Your task to perform on an android device: open app "VLC for Android" (install if not already installed) and enter user name: "Yves@outlook.com" and password: "internally" Image 0: 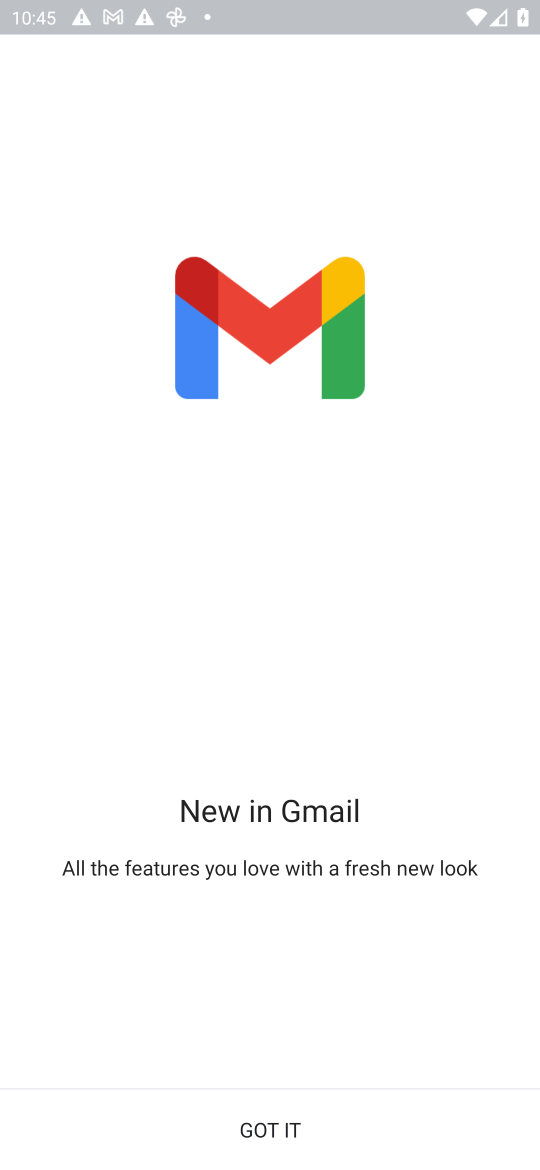
Step 0: press home button
Your task to perform on an android device: open app "VLC for Android" (install if not already installed) and enter user name: "Yves@outlook.com" and password: "internally" Image 1: 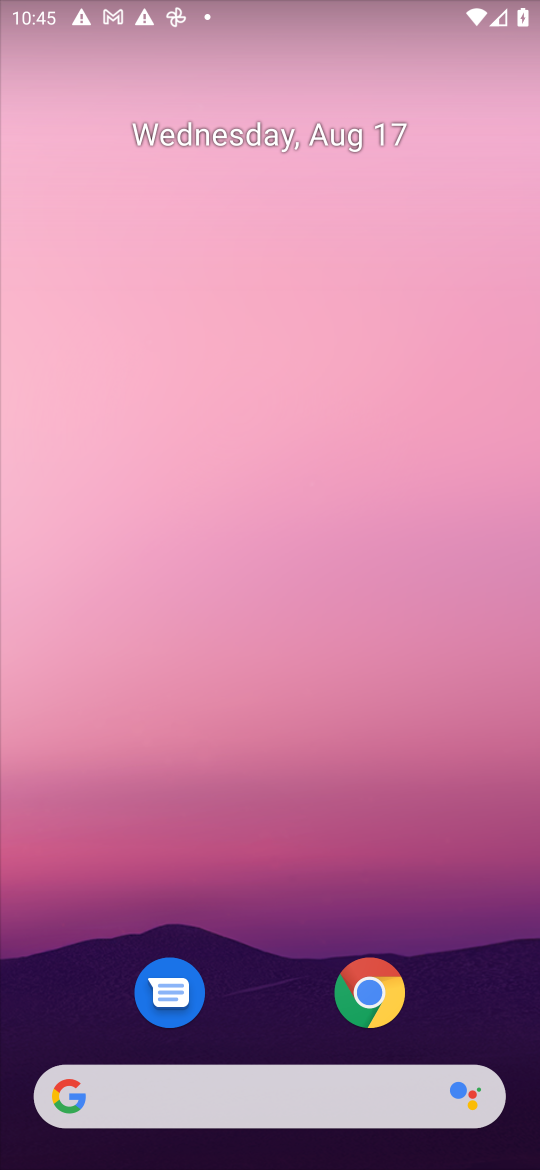
Step 1: drag from (457, 1008) to (284, 12)
Your task to perform on an android device: open app "VLC for Android" (install if not already installed) and enter user name: "Yves@outlook.com" and password: "internally" Image 2: 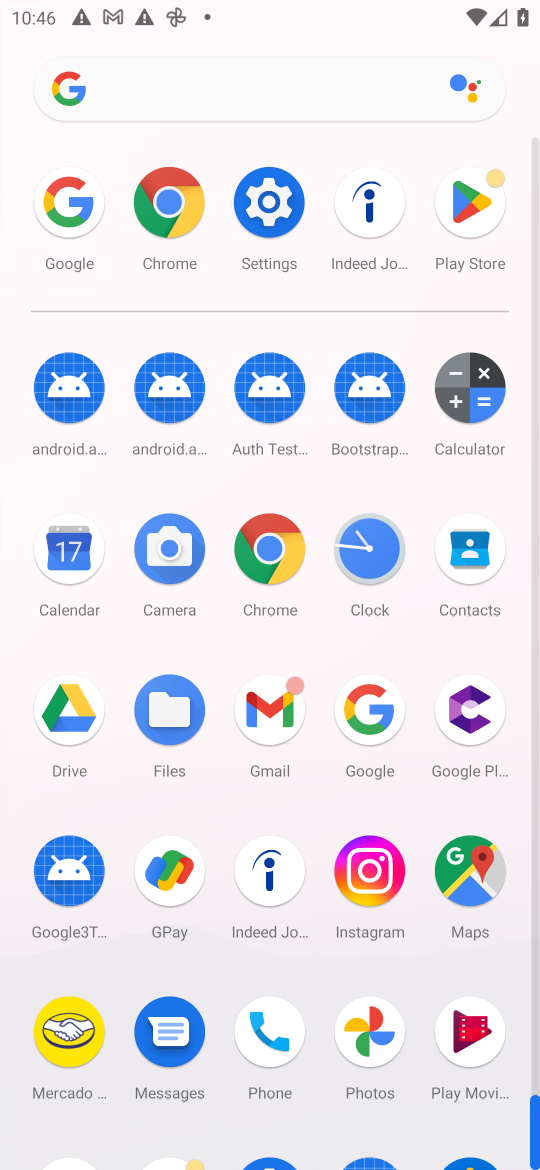
Step 2: click (484, 213)
Your task to perform on an android device: open app "VLC for Android" (install if not already installed) and enter user name: "Yves@outlook.com" and password: "internally" Image 3: 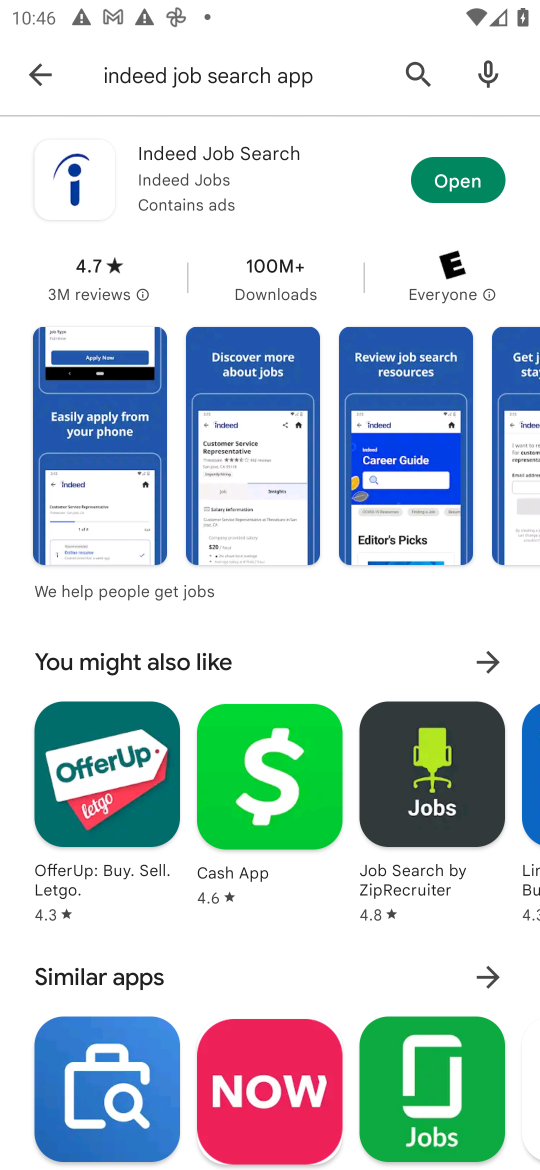
Step 3: press back button
Your task to perform on an android device: open app "VLC for Android" (install if not already installed) and enter user name: "Yves@outlook.com" and password: "internally" Image 4: 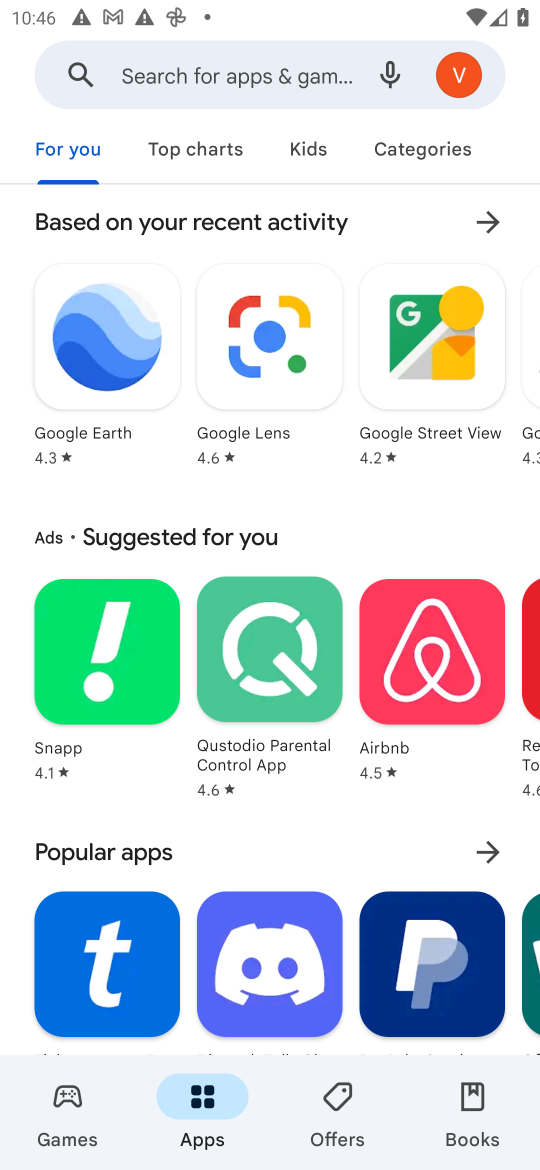
Step 4: click (204, 82)
Your task to perform on an android device: open app "VLC for Android" (install if not already installed) and enter user name: "Yves@outlook.com" and password: "internally" Image 5: 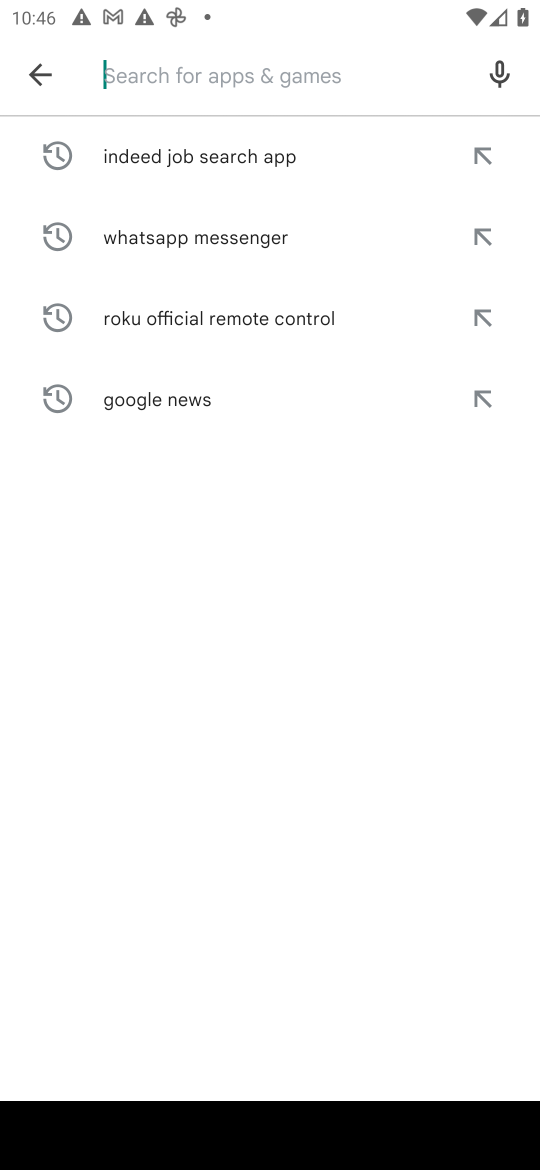
Step 5: type "VLC for Android"
Your task to perform on an android device: open app "VLC for Android" (install if not already installed) and enter user name: "Yves@outlook.com" and password: "internally" Image 6: 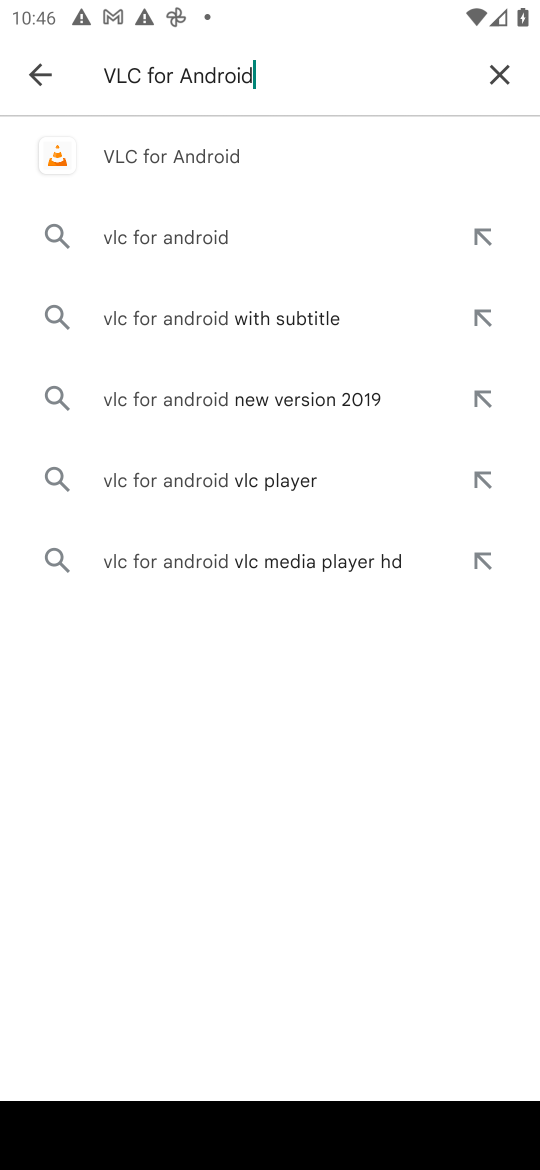
Step 6: click (172, 164)
Your task to perform on an android device: open app "VLC for Android" (install if not already installed) and enter user name: "Yves@outlook.com" and password: "internally" Image 7: 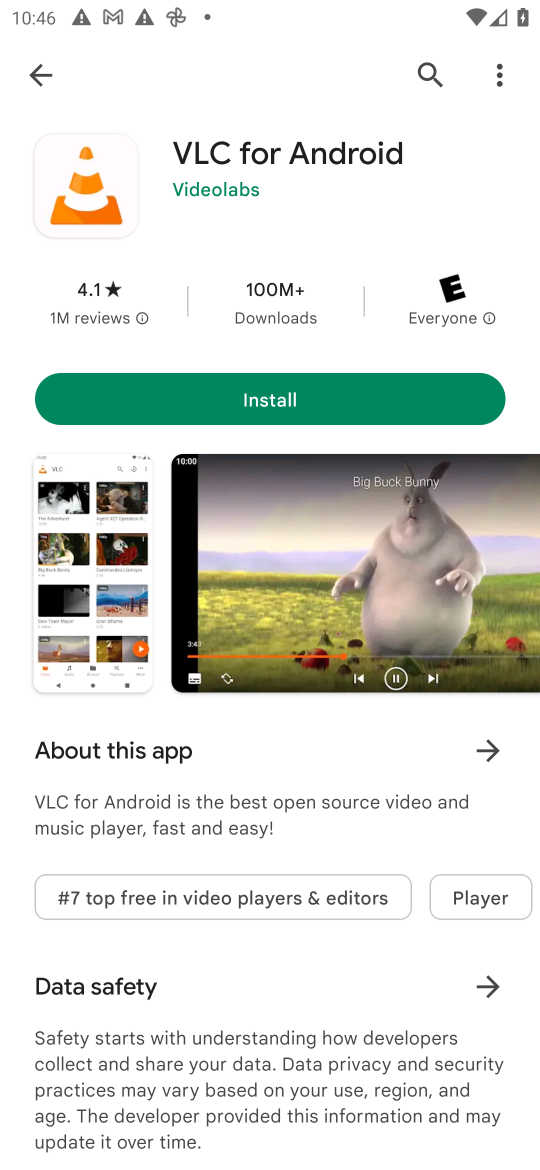
Step 7: task complete